Your task to perform on an android device: turn notification dots off Image 0: 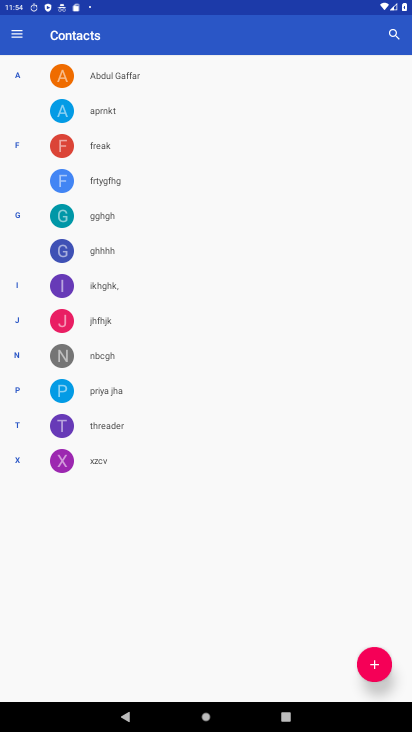
Step 0: press home button
Your task to perform on an android device: turn notification dots off Image 1: 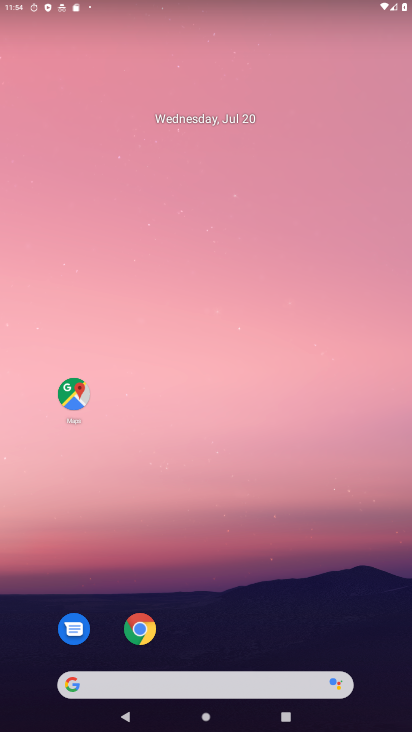
Step 1: drag from (147, 699) to (275, 3)
Your task to perform on an android device: turn notification dots off Image 2: 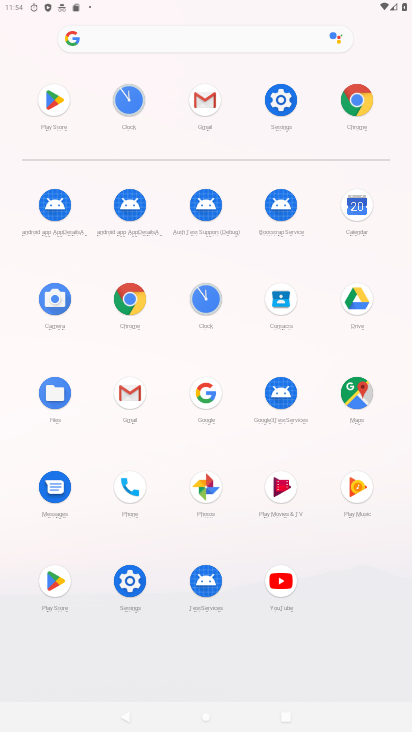
Step 2: click (273, 108)
Your task to perform on an android device: turn notification dots off Image 3: 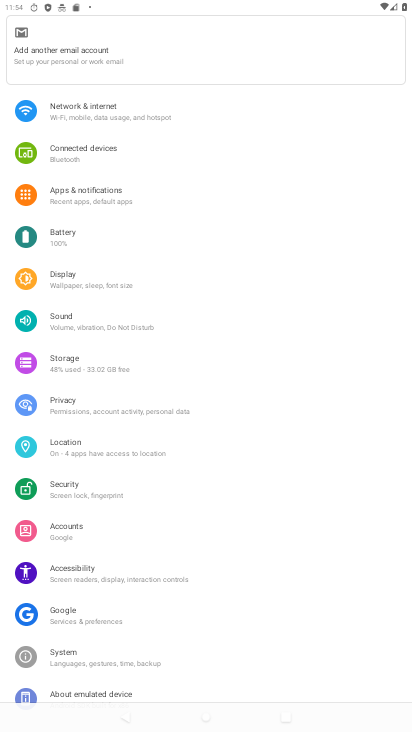
Step 3: click (84, 194)
Your task to perform on an android device: turn notification dots off Image 4: 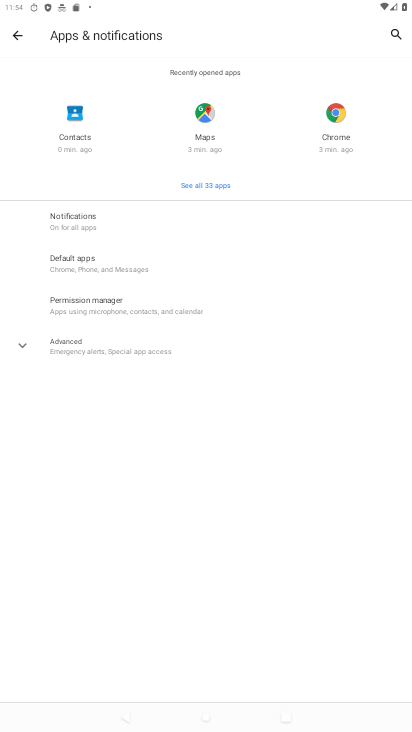
Step 4: click (91, 228)
Your task to perform on an android device: turn notification dots off Image 5: 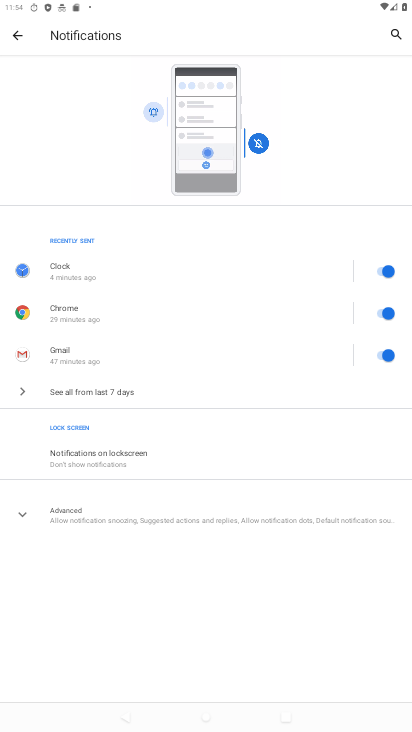
Step 5: click (111, 520)
Your task to perform on an android device: turn notification dots off Image 6: 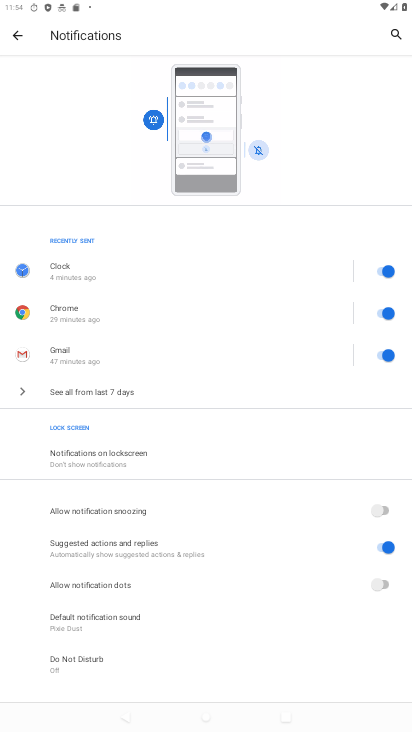
Step 6: task complete